Your task to perform on an android device: Is it going to rain today? Image 0: 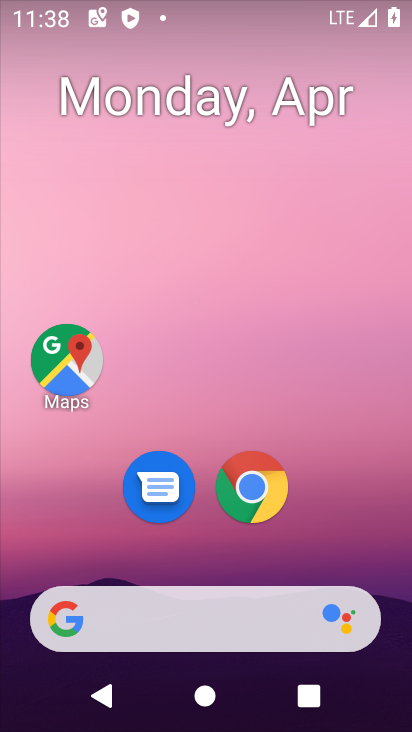
Step 0: click (247, 503)
Your task to perform on an android device: Is it going to rain today? Image 1: 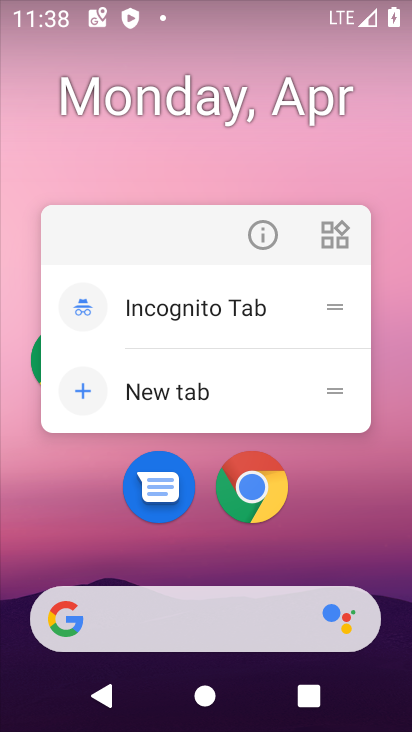
Step 1: click (247, 503)
Your task to perform on an android device: Is it going to rain today? Image 2: 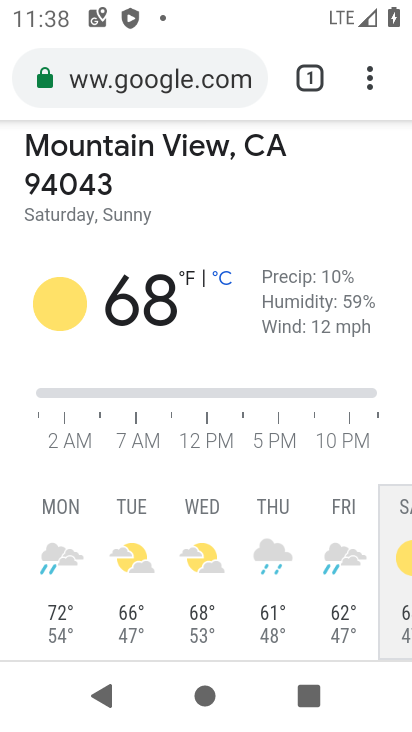
Step 2: click (221, 64)
Your task to perform on an android device: Is it going to rain today? Image 3: 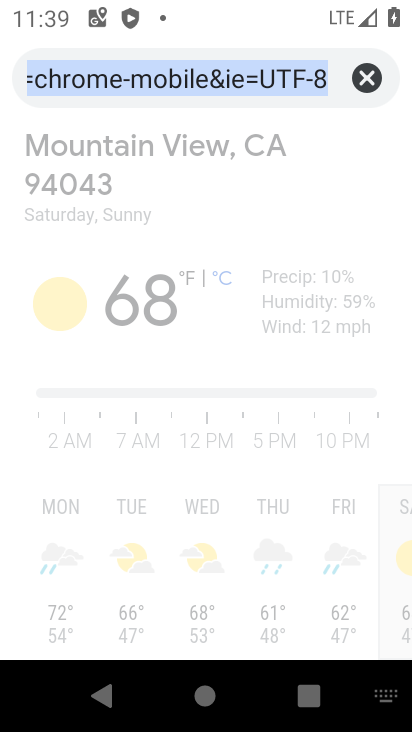
Step 3: type "Is it going to rain today?"
Your task to perform on an android device: Is it going to rain today? Image 4: 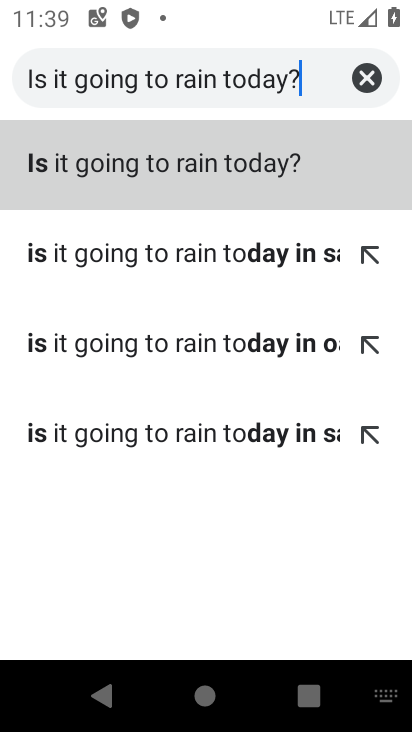
Step 4: click (166, 170)
Your task to perform on an android device: Is it going to rain today? Image 5: 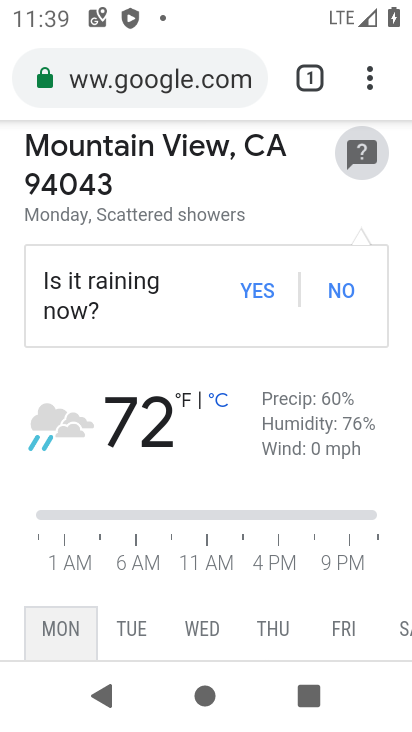
Step 5: task complete